Your task to perform on an android device: Open eBay Image 0: 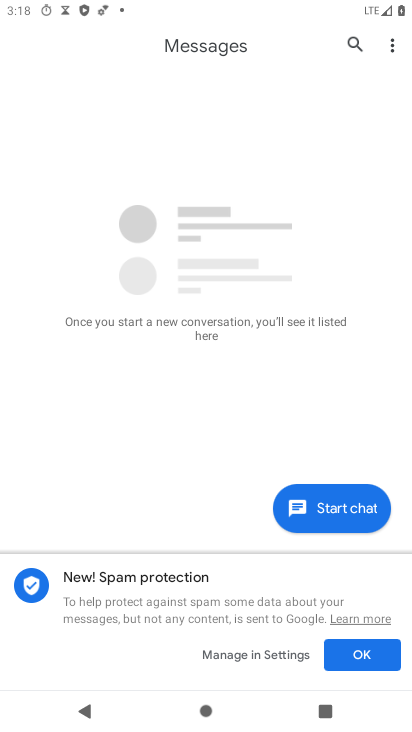
Step 0: press home button
Your task to perform on an android device: Open eBay Image 1: 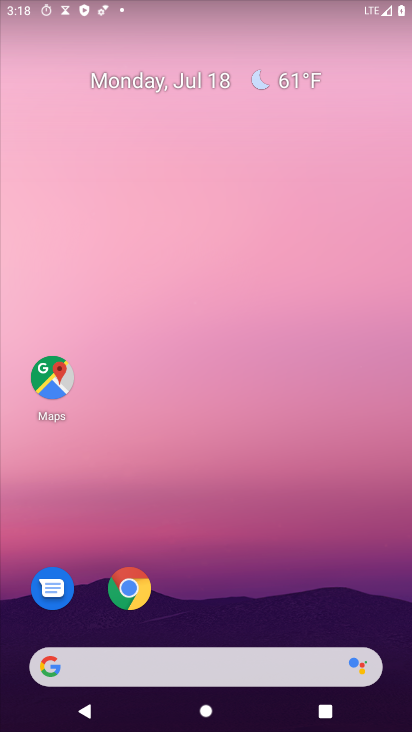
Step 1: drag from (323, 577) to (364, 89)
Your task to perform on an android device: Open eBay Image 2: 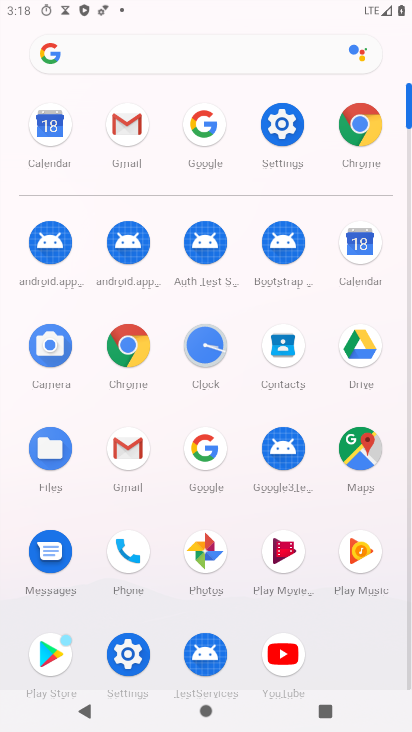
Step 2: click (369, 126)
Your task to perform on an android device: Open eBay Image 3: 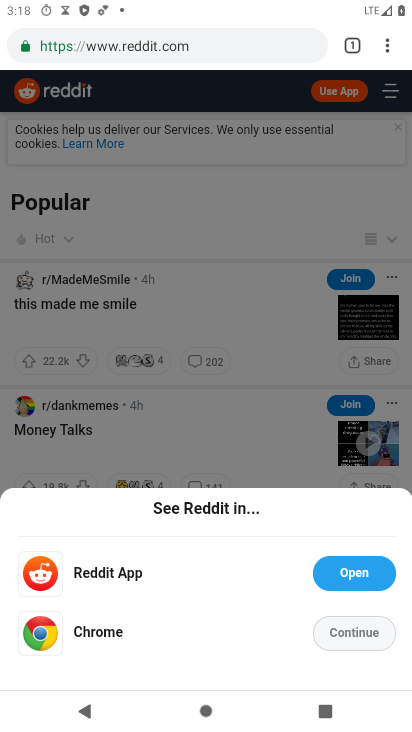
Step 3: click (174, 43)
Your task to perform on an android device: Open eBay Image 4: 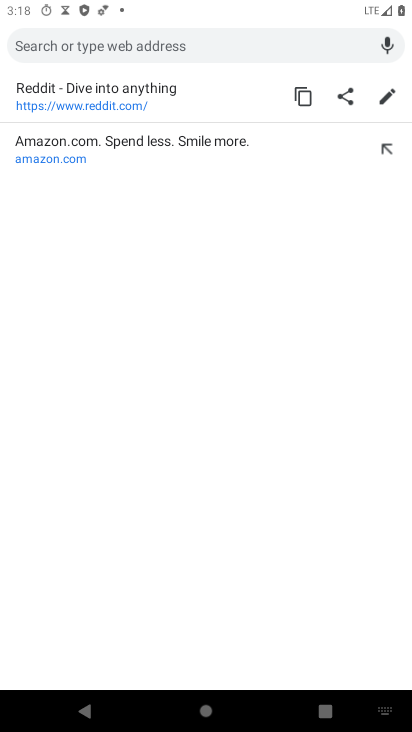
Step 4: type "eBay"
Your task to perform on an android device: Open eBay Image 5: 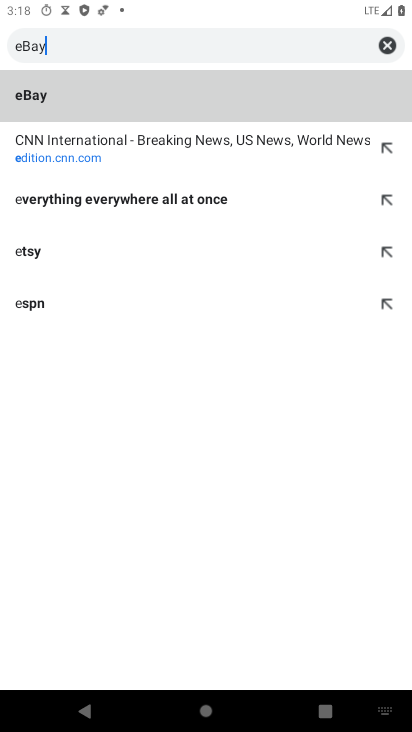
Step 5: press enter
Your task to perform on an android device: Open eBay Image 6: 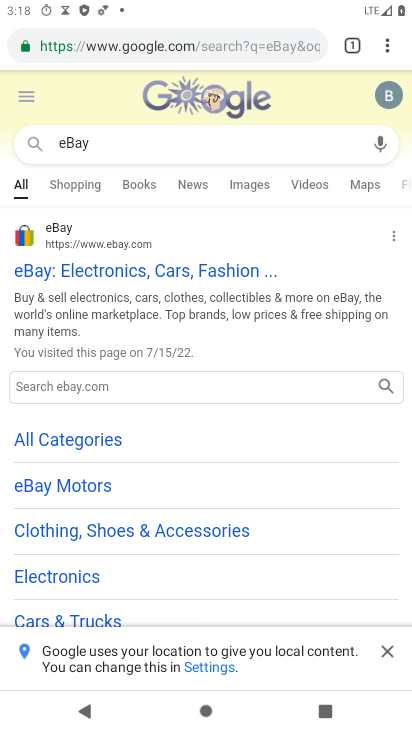
Step 6: click (32, 257)
Your task to perform on an android device: Open eBay Image 7: 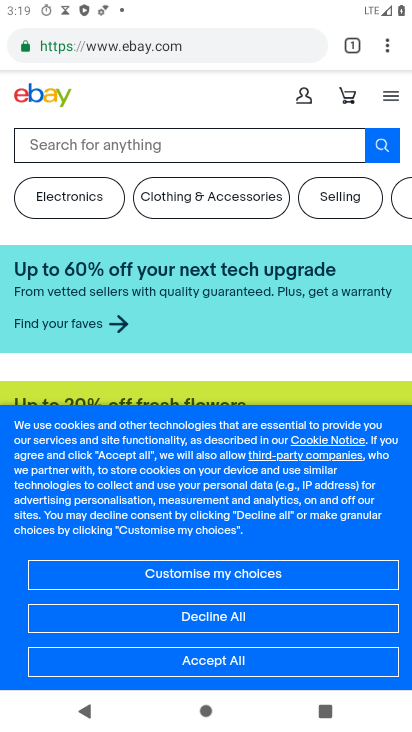
Step 7: task complete